Your task to perform on an android device: change alarm snooze length Image 0: 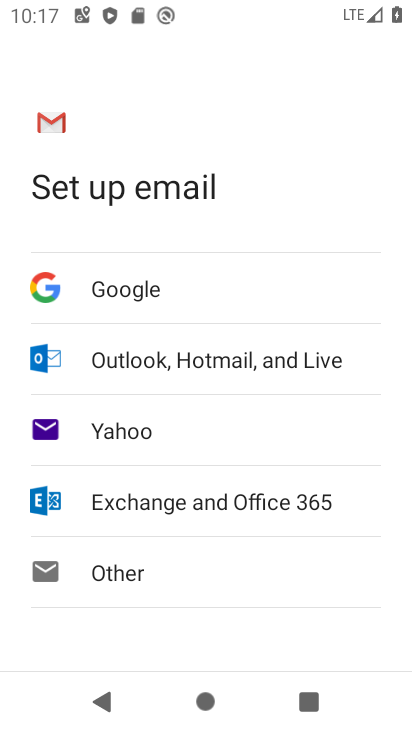
Step 0: press home button
Your task to perform on an android device: change alarm snooze length Image 1: 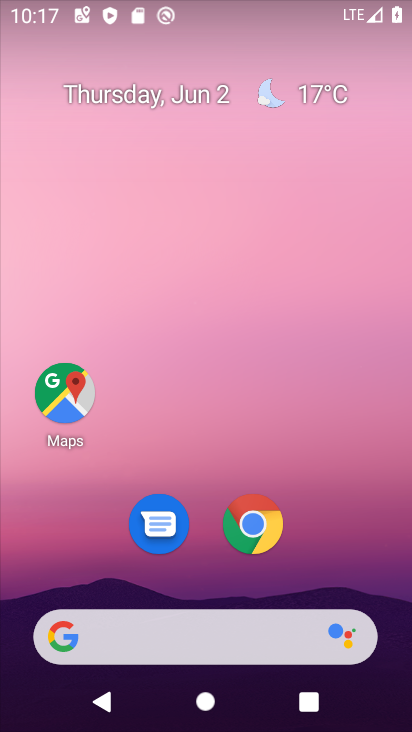
Step 1: drag from (288, 432) to (265, 21)
Your task to perform on an android device: change alarm snooze length Image 2: 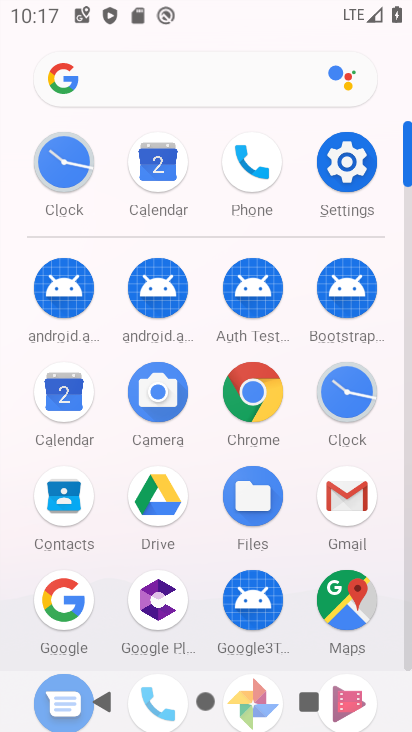
Step 2: click (351, 383)
Your task to perform on an android device: change alarm snooze length Image 3: 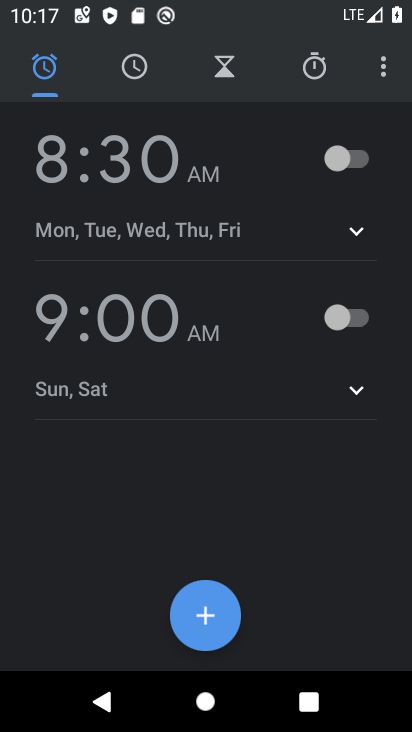
Step 3: click (381, 78)
Your task to perform on an android device: change alarm snooze length Image 4: 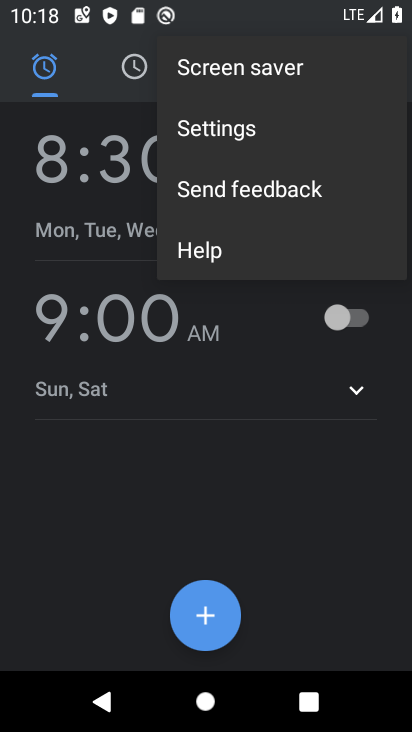
Step 4: click (292, 127)
Your task to perform on an android device: change alarm snooze length Image 5: 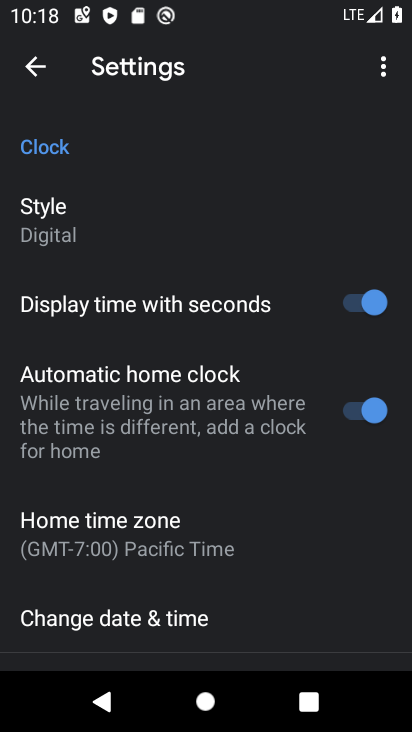
Step 5: drag from (264, 496) to (263, 126)
Your task to perform on an android device: change alarm snooze length Image 6: 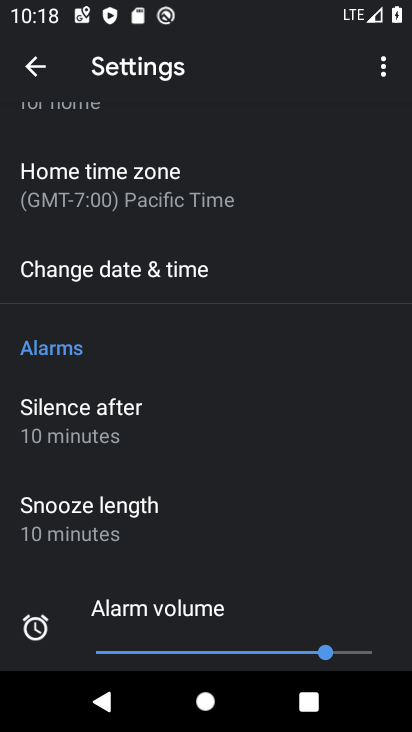
Step 6: drag from (208, 432) to (197, 118)
Your task to perform on an android device: change alarm snooze length Image 7: 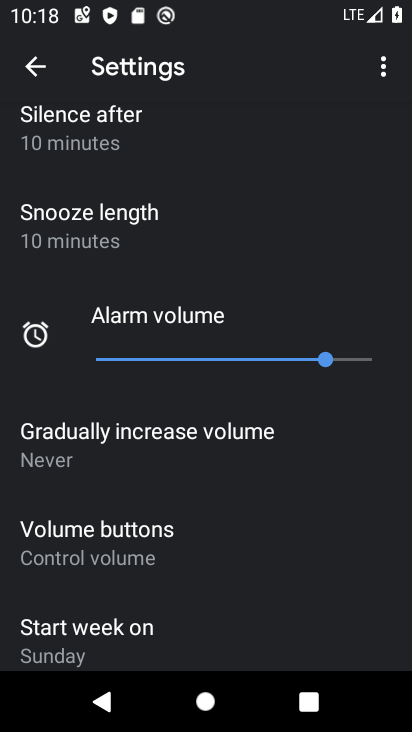
Step 7: drag from (206, 554) to (229, 137)
Your task to perform on an android device: change alarm snooze length Image 8: 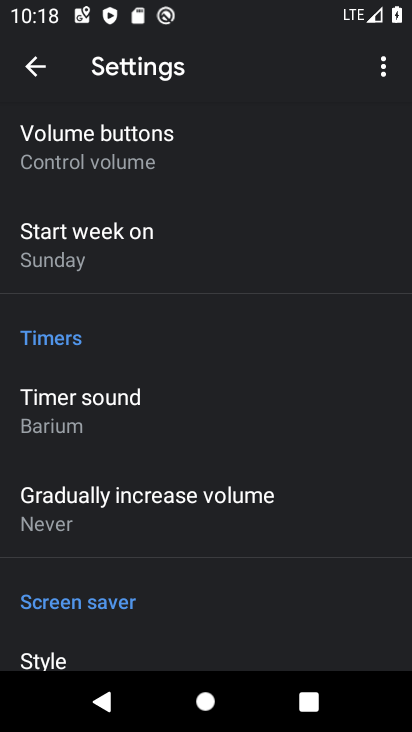
Step 8: drag from (267, 176) to (276, 598)
Your task to perform on an android device: change alarm snooze length Image 9: 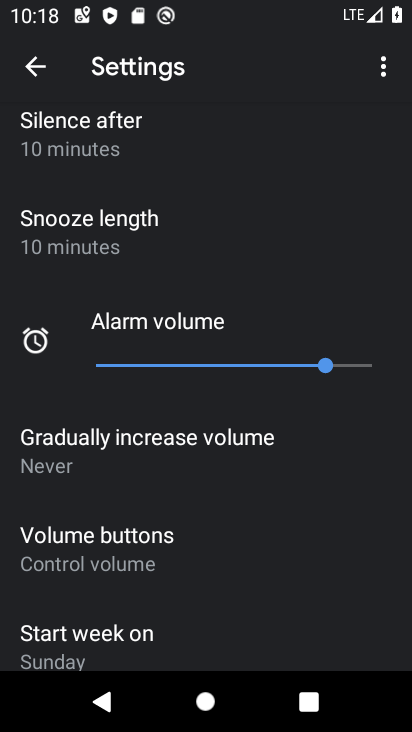
Step 9: click (126, 232)
Your task to perform on an android device: change alarm snooze length Image 10: 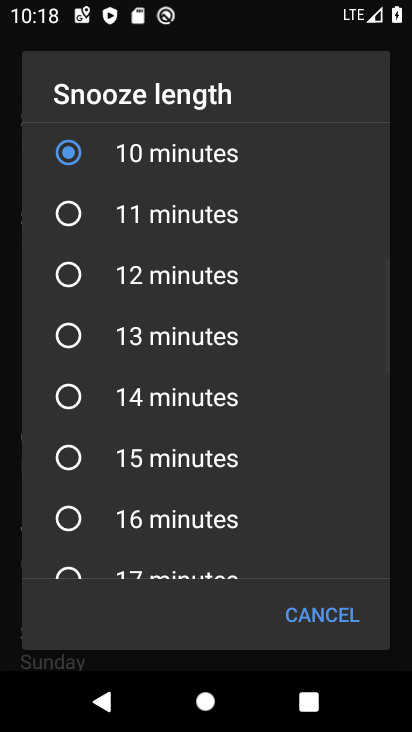
Step 10: click (68, 275)
Your task to perform on an android device: change alarm snooze length Image 11: 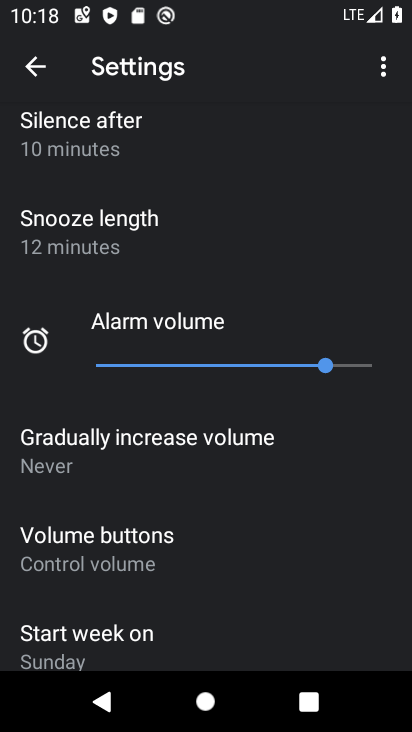
Step 11: task complete